Your task to perform on an android device: Go to Google maps Image 0: 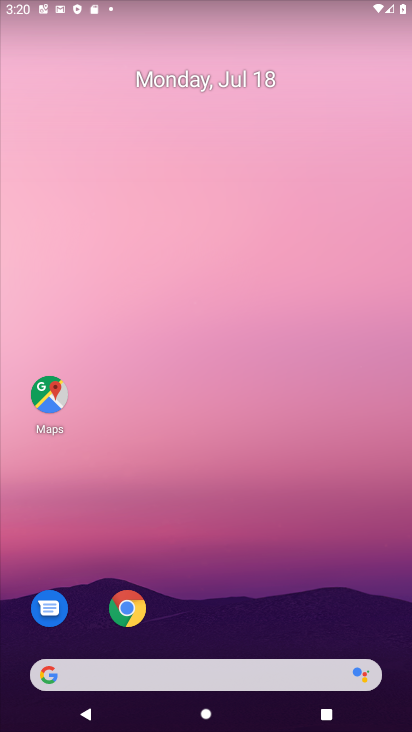
Step 0: drag from (257, 650) to (290, 213)
Your task to perform on an android device: Go to Google maps Image 1: 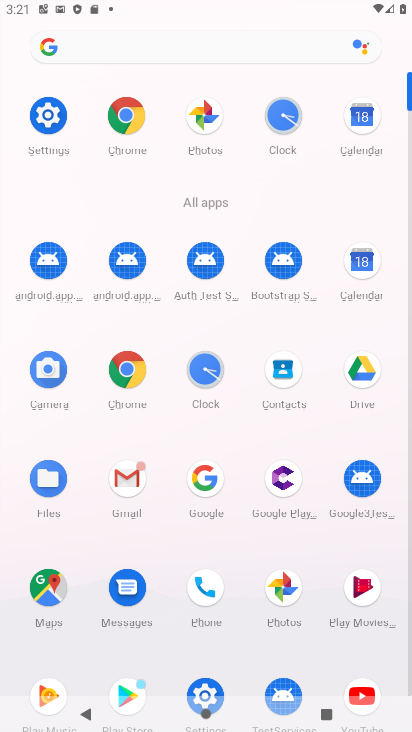
Step 1: click (47, 604)
Your task to perform on an android device: Go to Google maps Image 2: 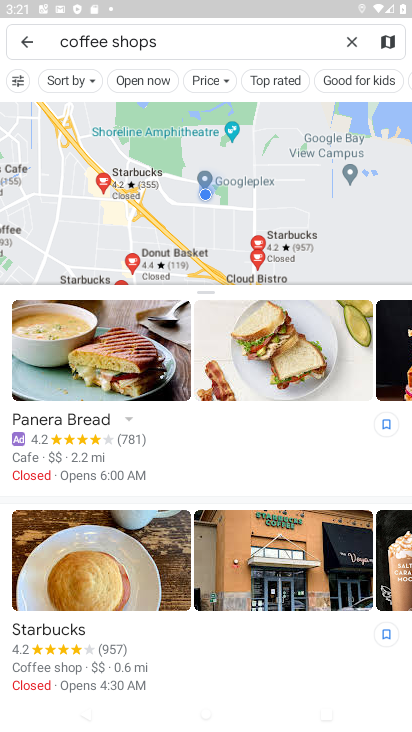
Step 2: task complete